Your task to perform on an android device: turn off translation in the chrome app Image 0: 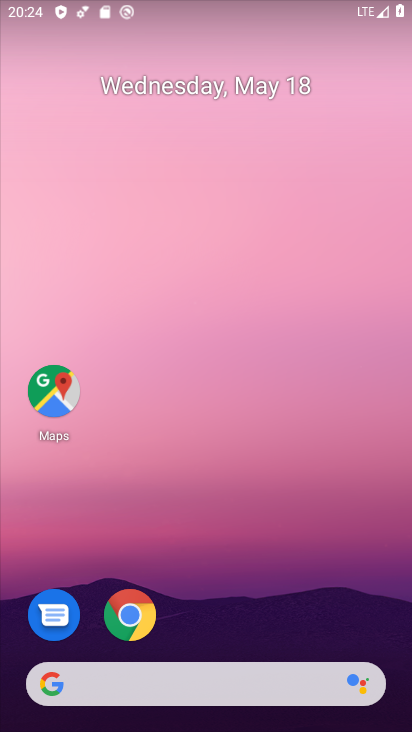
Step 0: click (118, 622)
Your task to perform on an android device: turn off translation in the chrome app Image 1: 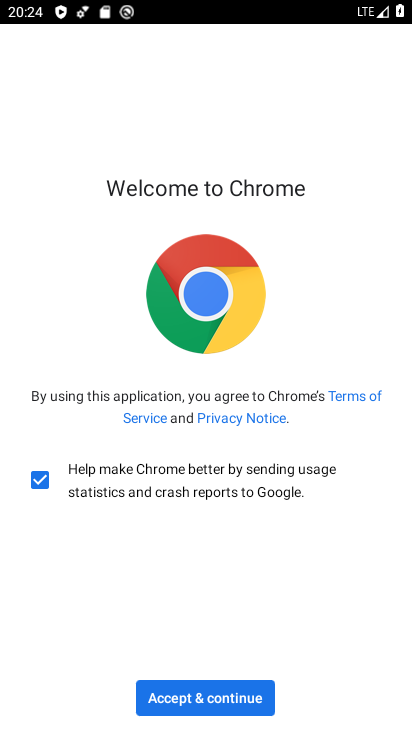
Step 1: click (229, 702)
Your task to perform on an android device: turn off translation in the chrome app Image 2: 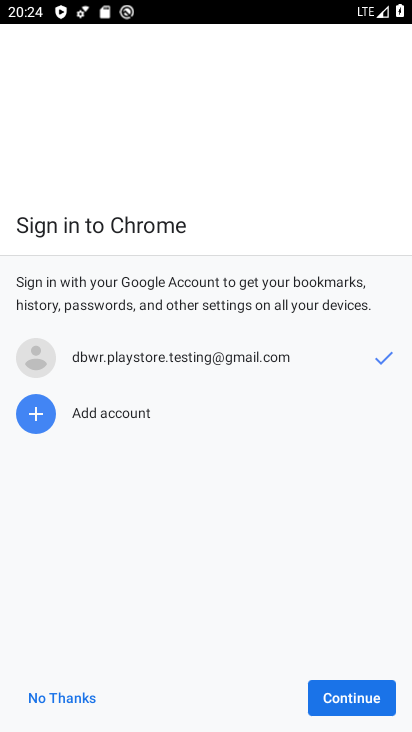
Step 2: click (353, 699)
Your task to perform on an android device: turn off translation in the chrome app Image 3: 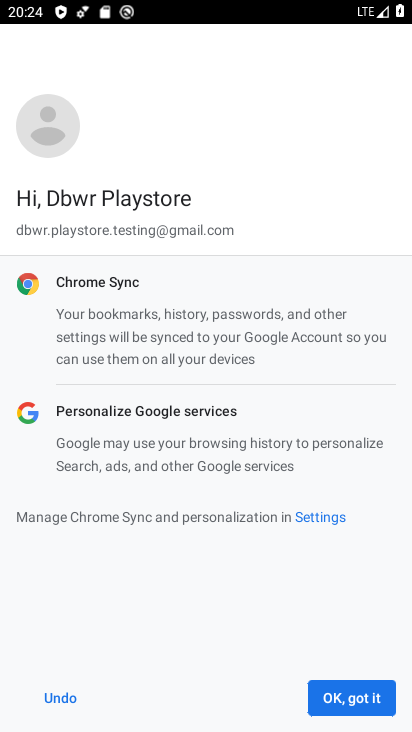
Step 3: click (353, 699)
Your task to perform on an android device: turn off translation in the chrome app Image 4: 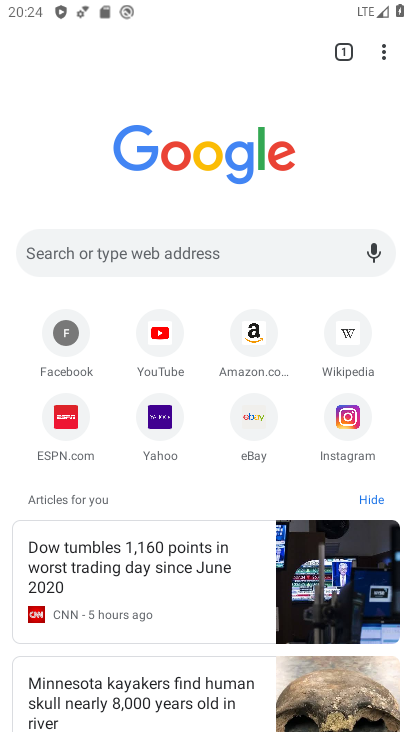
Step 4: click (388, 61)
Your task to perform on an android device: turn off translation in the chrome app Image 5: 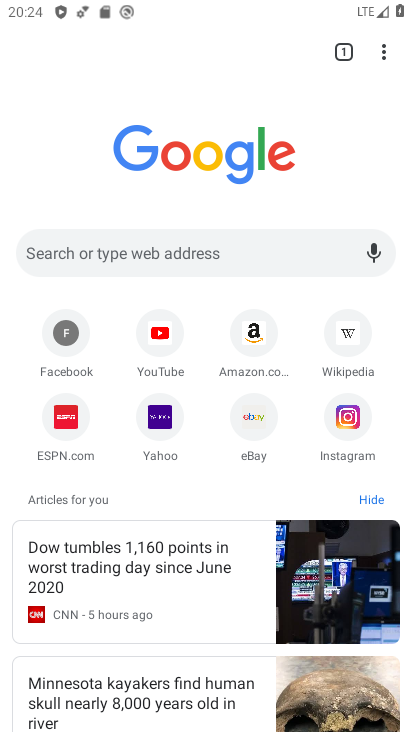
Step 5: drag from (381, 58) to (219, 436)
Your task to perform on an android device: turn off translation in the chrome app Image 6: 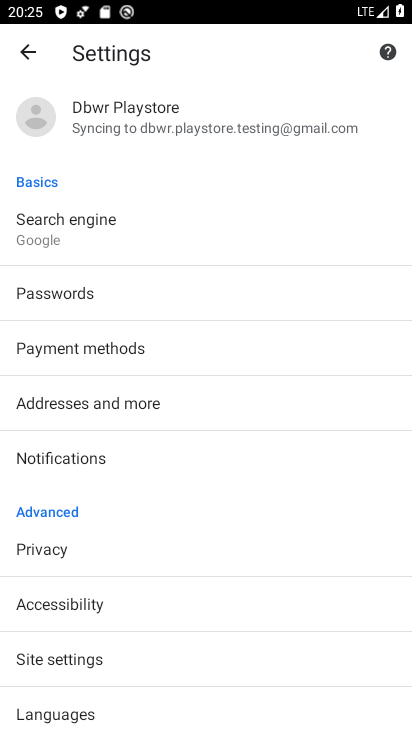
Step 6: drag from (104, 625) to (152, 179)
Your task to perform on an android device: turn off translation in the chrome app Image 7: 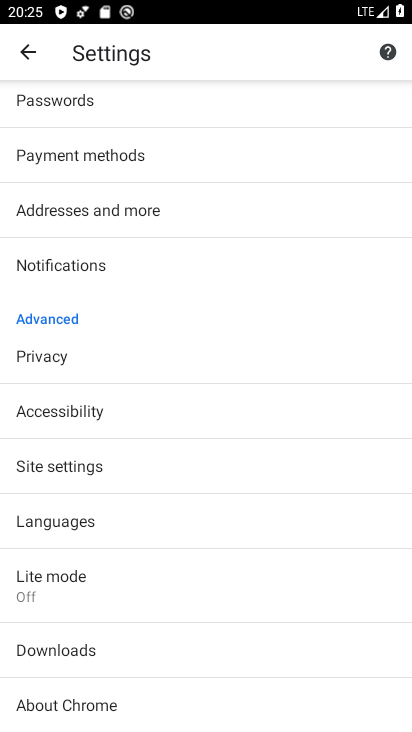
Step 7: click (106, 525)
Your task to perform on an android device: turn off translation in the chrome app Image 8: 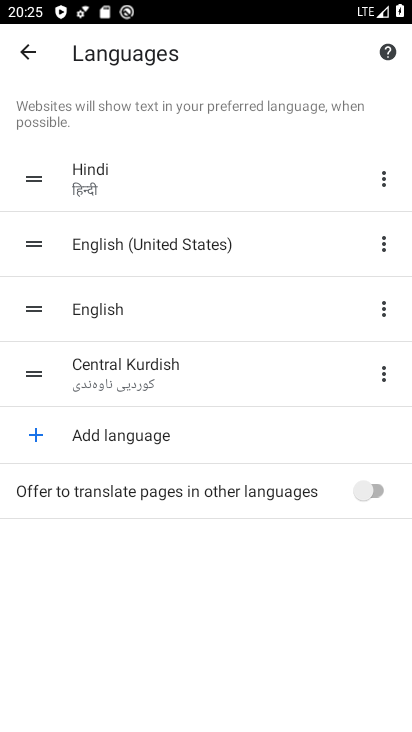
Step 8: task complete